Your task to perform on an android device: Go to sound settings Image 0: 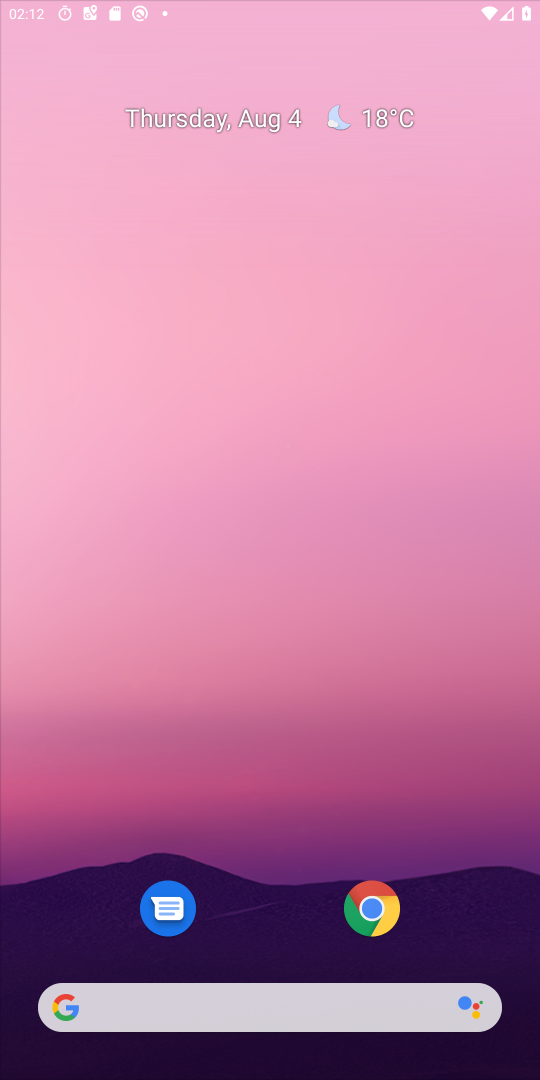
Step 0: press home button
Your task to perform on an android device: Go to sound settings Image 1: 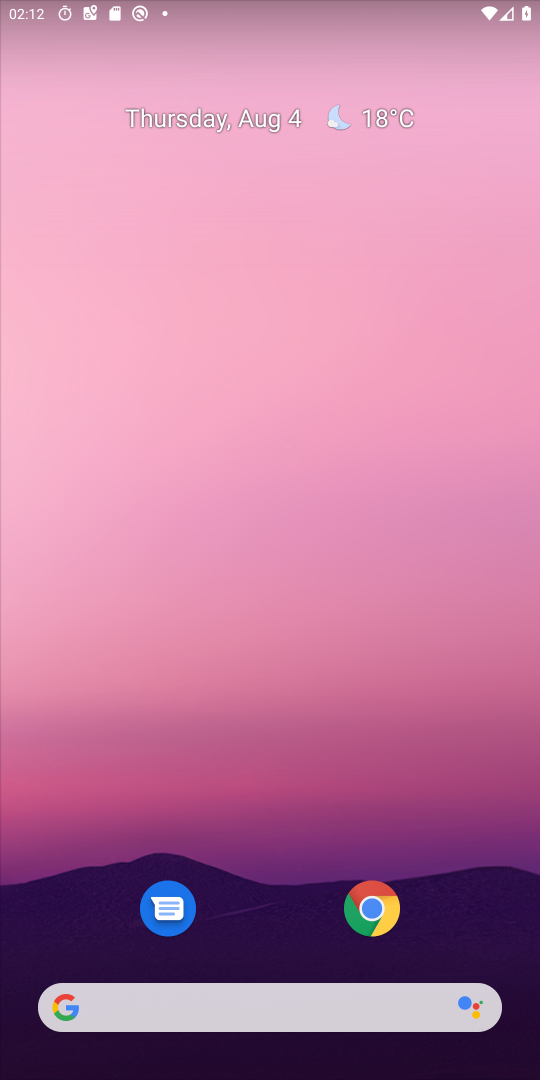
Step 1: drag from (341, 1035) to (205, 279)
Your task to perform on an android device: Go to sound settings Image 2: 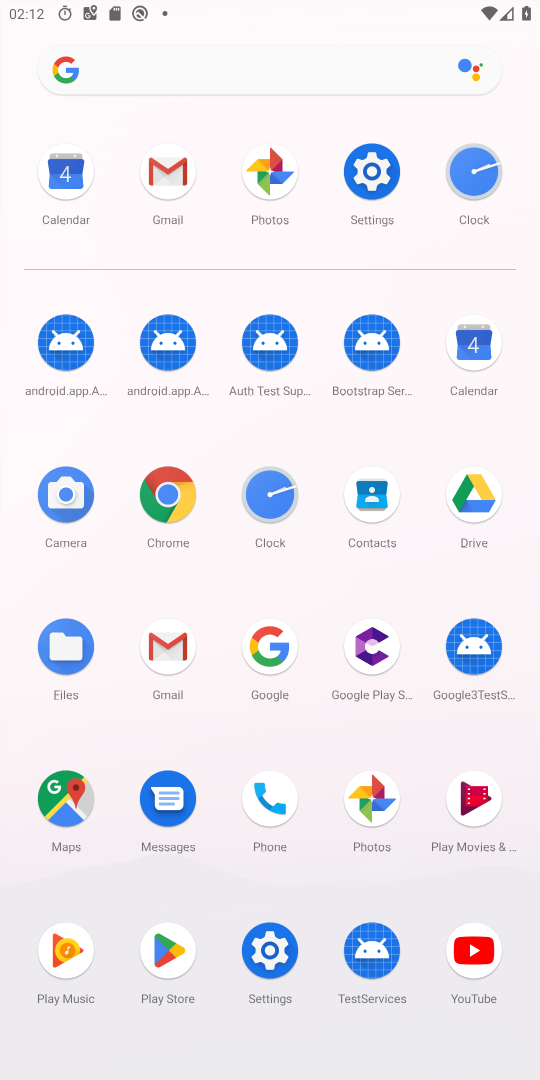
Step 2: click (387, 176)
Your task to perform on an android device: Go to sound settings Image 3: 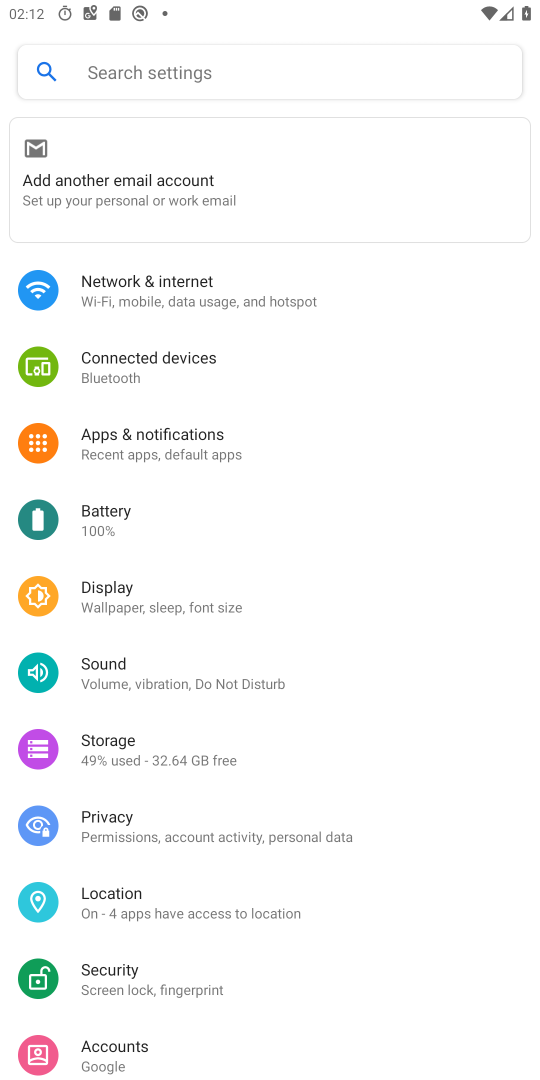
Step 3: click (127, 670)
Your task to perform on an android device: Go to sound settings Image 4: 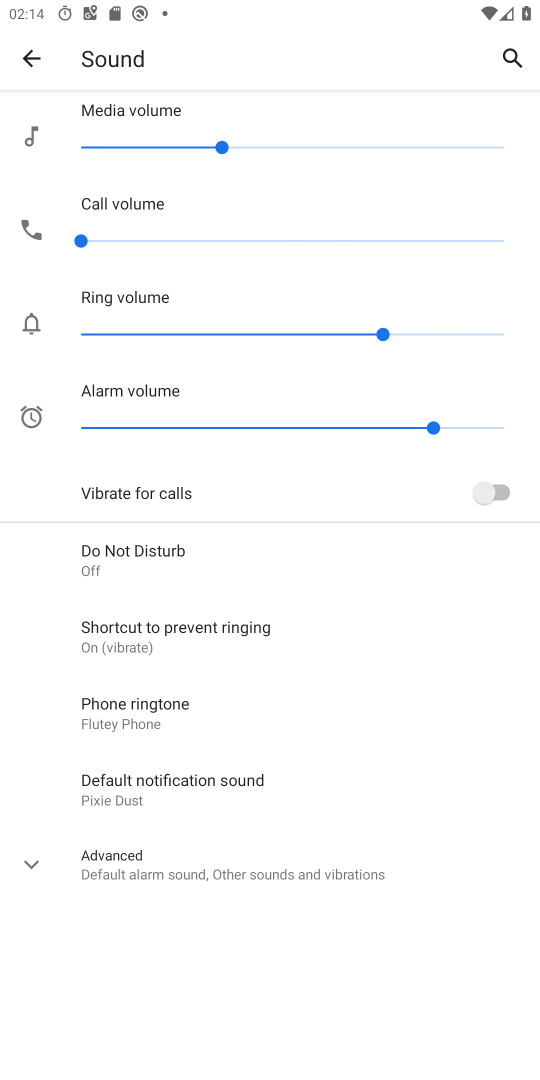
Step 4: task complete